Your task to perform on an android device: turn on priority inbox in the gmail app Image 0: 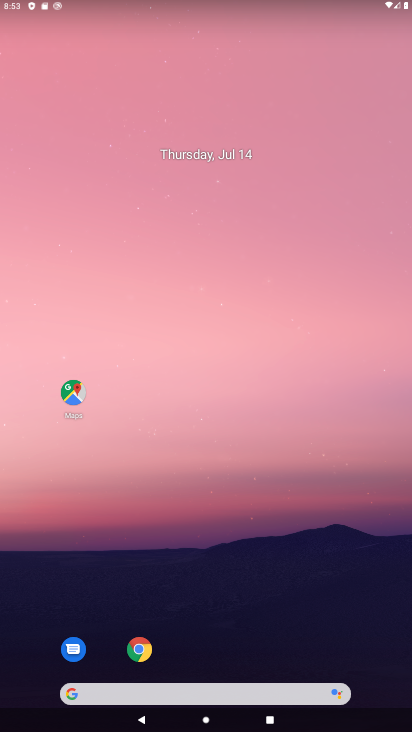
Step 0: drag from (209, 566) to (220, 124)
Your task to perform on an android device: turn on priority inbox in the gmail app Image 1: 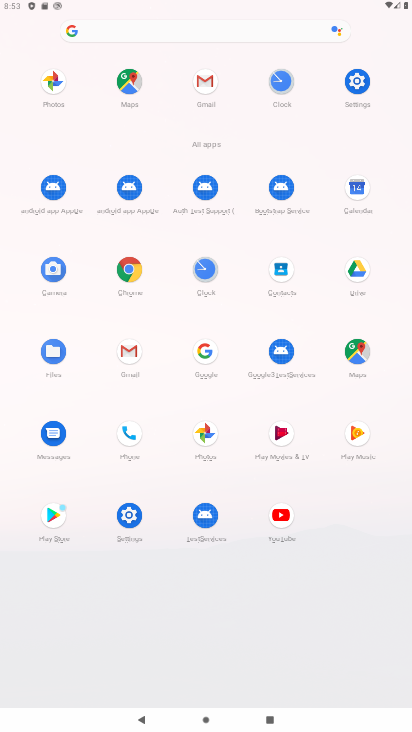
Step 1: click (201, 106)
Your task to perform on an android device: turn on priority inbox in the gmail app Image 2: 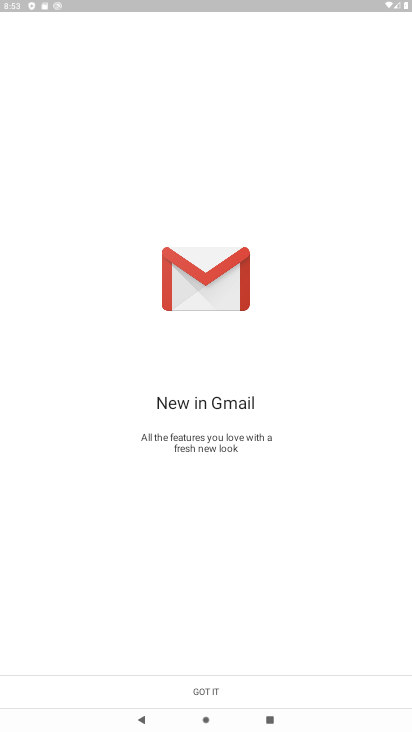
Step 2: click (203, 687)
Your task to perform on an android device: turn on priority inbox in the gmail app Image 3: 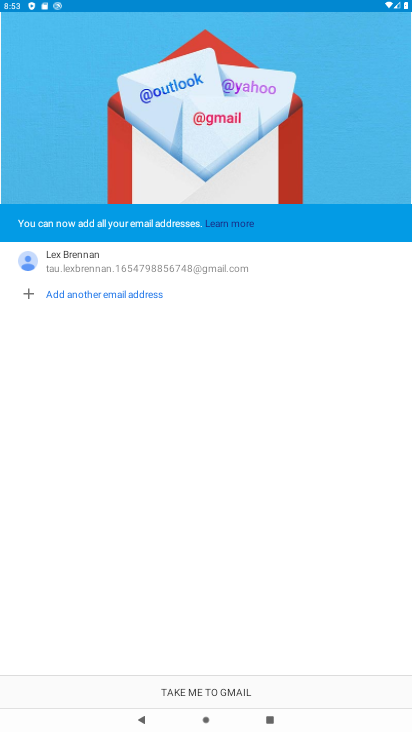
Step 3: click (203, 687)
Your task to perform on an android device: turn on priority inbox in the gmail app Image 4: 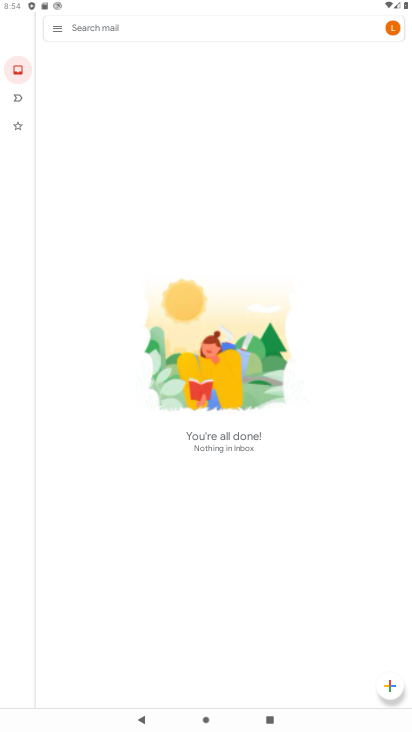
Step 4: click (57, 31)
Your task to perform on an android device: turn on priority inbox in the gmail app Image 5: 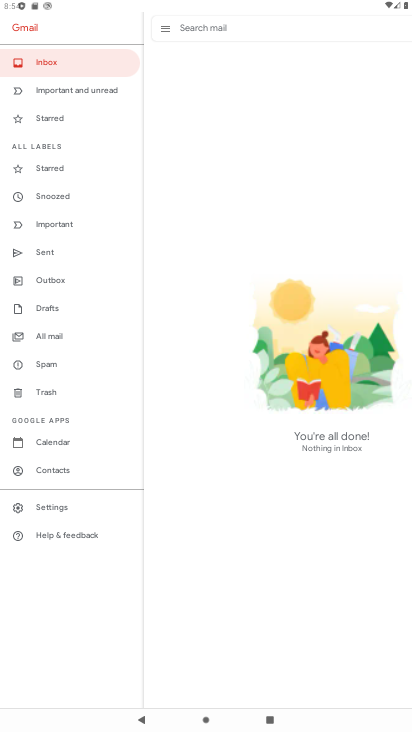
Step 5: click (51, 498)
Your task to perform on an android device: turn on priority inbox in the gmail app Image 6: 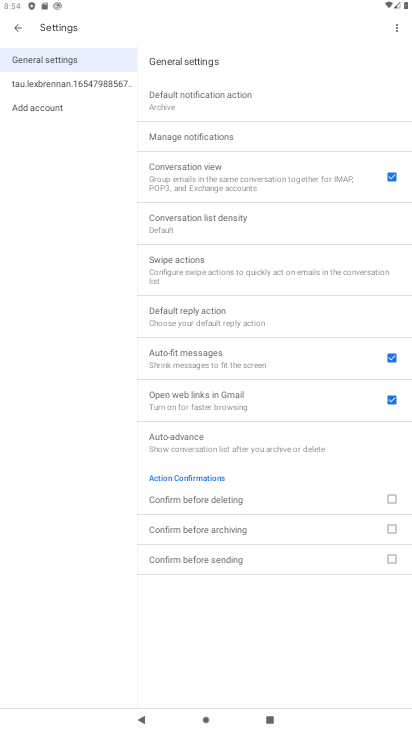
Step 6: click (40, 94)
Your task to perform on an android device: turn on priority inbox in the gmail app Image 7: 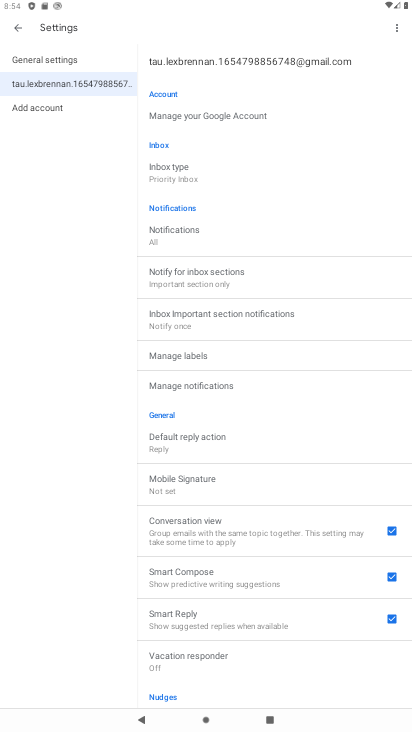
Step 7: click (168, 168)
Your task to perform on an android device: turn on priority inbox in the gmail app Image 8: 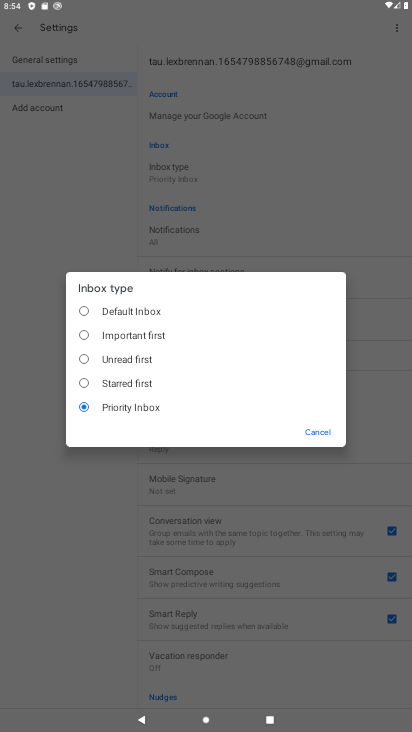
Step 8: task complete